Your task to perform on an android device: turn on the 12-hour format for clock Image 0: 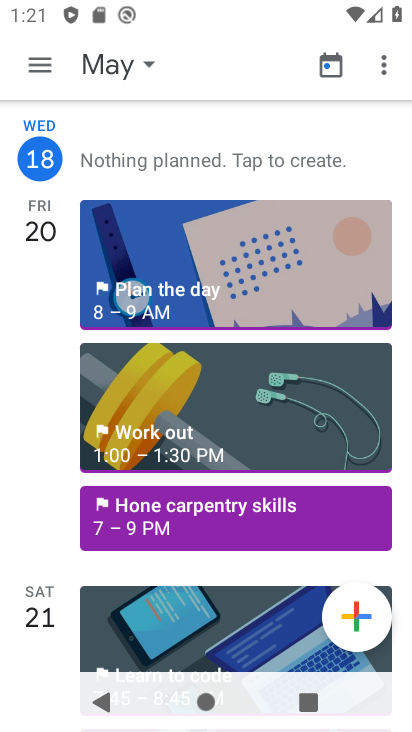
Step 0: press home button
Your task to perform on an android device: turn on the 12-hour format for clock Image 1: 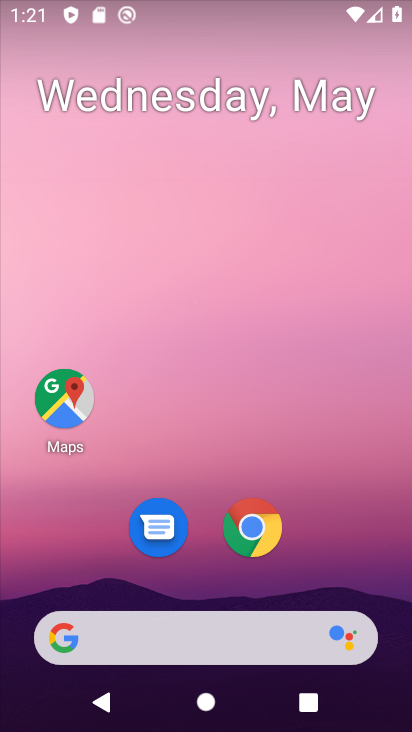
Step 1: drag from (74, 600) to (200, 104)
Your task to perform on an android device: turn on the 12-hour format for clock Image 2: 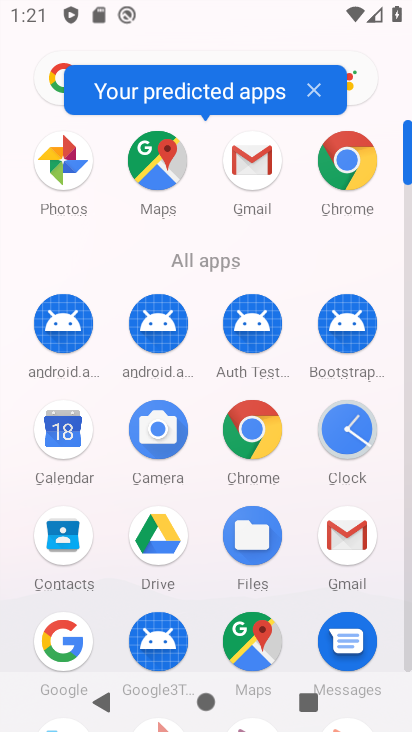
Step 2: drag from (190, 550) to (216, 374)
Your task to perform on an android device: turn on the 12-hour format for clock Image 3: 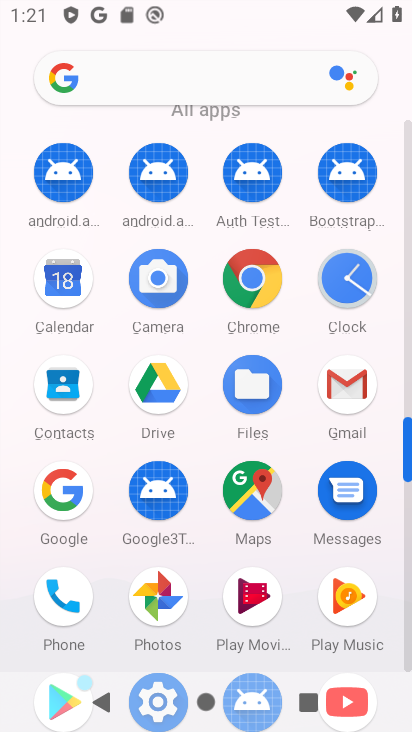
Step 3: drag from (156, 658) to (211, 493)
Your task to perform on an android device: turn on the 12-hour format for clock Image 4: 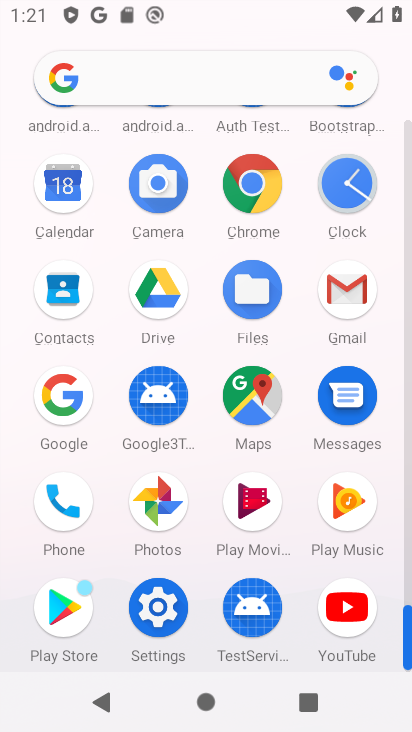
Step 4: click (344, 188)
Your task to perform on an android device: turn on the 12-hour format for clock Image 5: 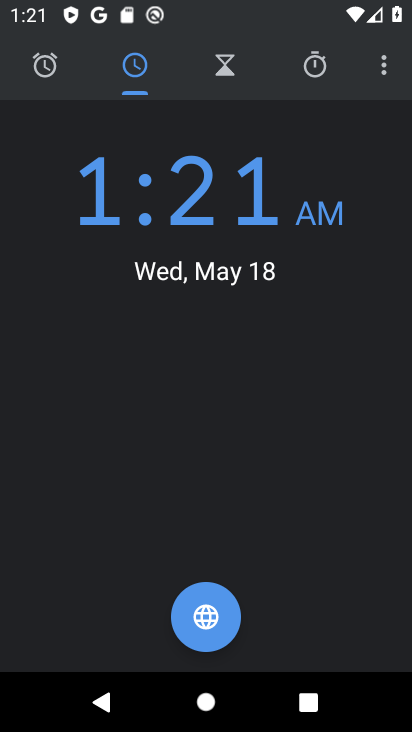
Step 5: click (380, 47)
Your task to perform on an android device: turn on the 12-hour format for clock Image 6: 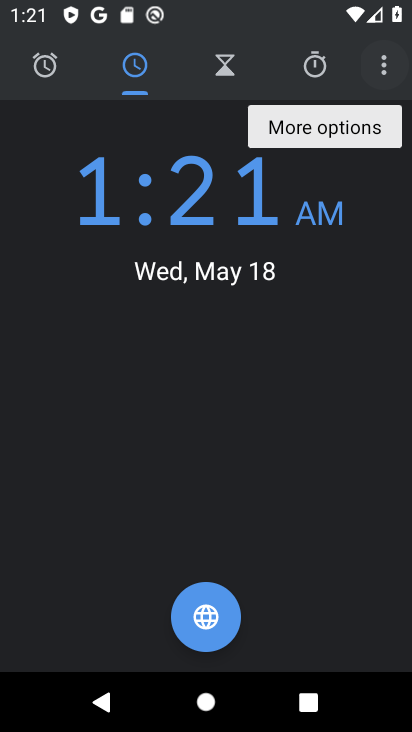
Step 6: click (383, 82)
Your task to perform on an android device: turn on the 12-hour format for clock Image 7: 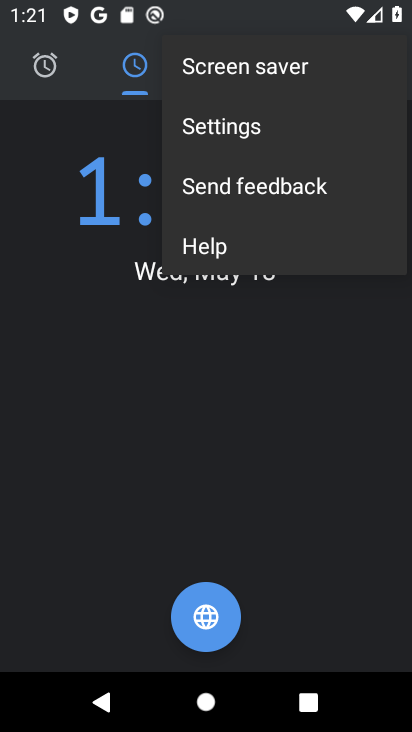
Step 7: click (344, 123)
Your task to perform on an android device: turn on the 12-hour format for clock Image 8: 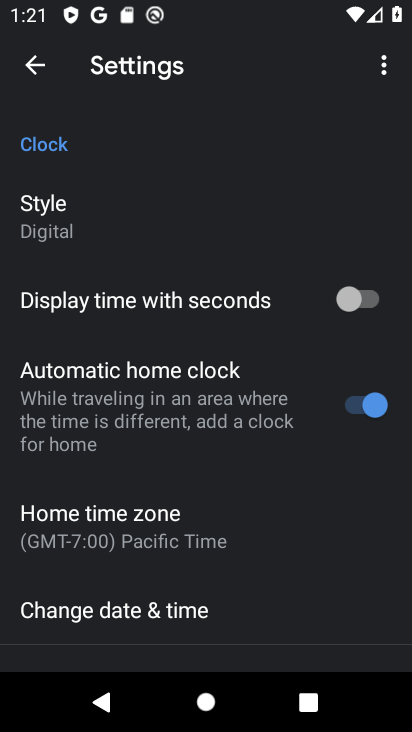
Step 8: click (179, 607)
Your task to perform on an android device: turn on the 12-hour format for clock Image 9: 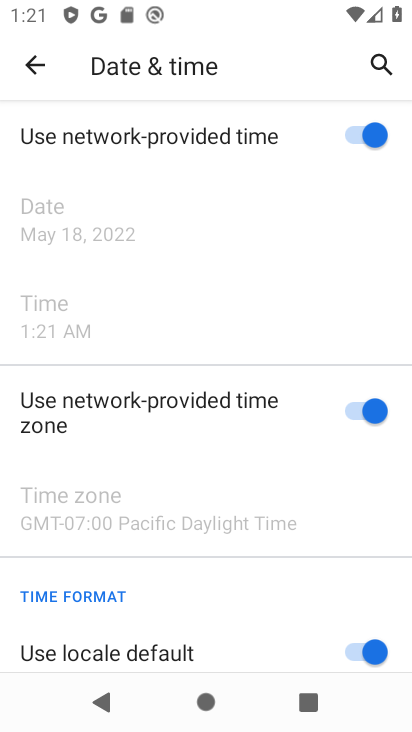
Step 9: task complete